Your task to perform on an android device: turn on priority inbox in the gmail app Image 0: 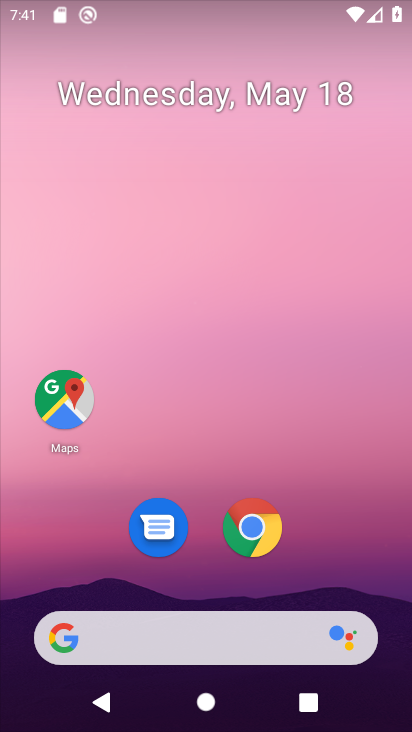
Step 0: drag from (350, 279) to (359, 136)
Your task to perform on an android device: turn on priority inbox in the gmail app Image 1: 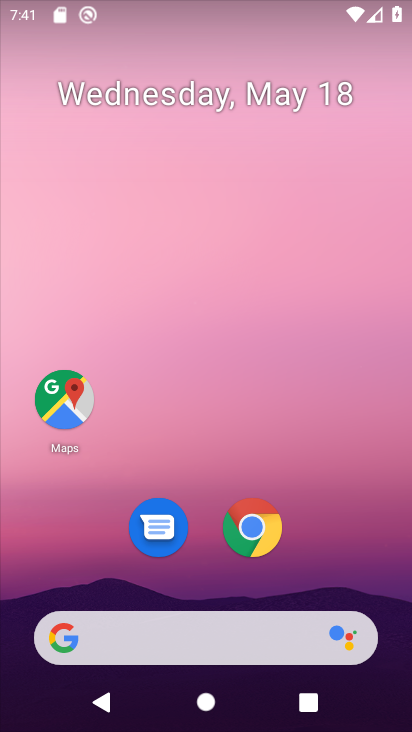
Step 1: drag from (302, 565) to (297, 155)
Your task to perform on an android device: turn on priority inbox in the gmail app Image 2: 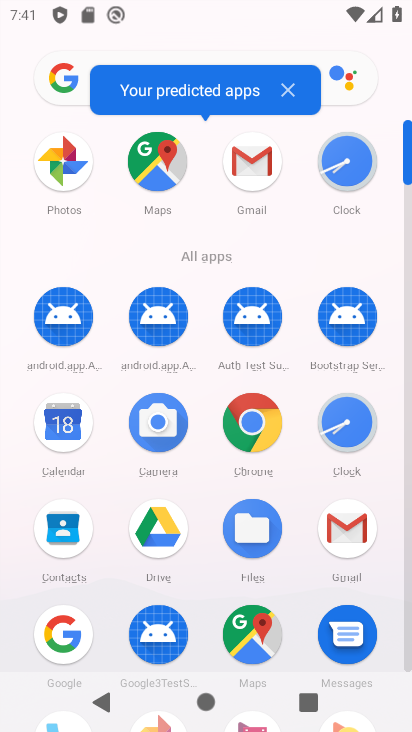
Step 2: click (361, 546)
Your task to perform on an android device: turn on priority inbox in the gmail app Image 3: 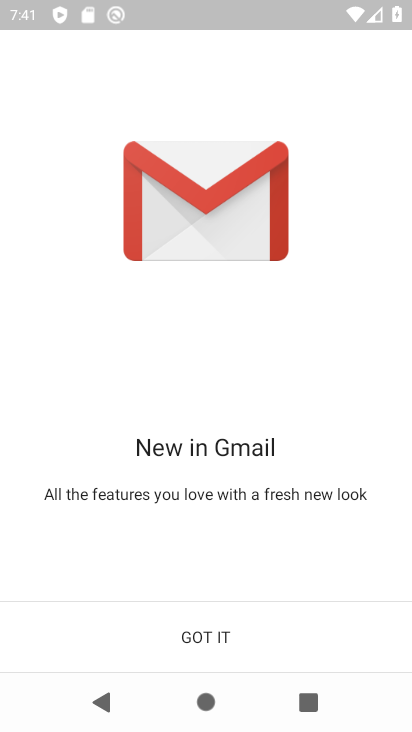
Step 3: click (181, 641)
Your task to perform on an android device: turn on priority inbox in the gmail app Image 4: 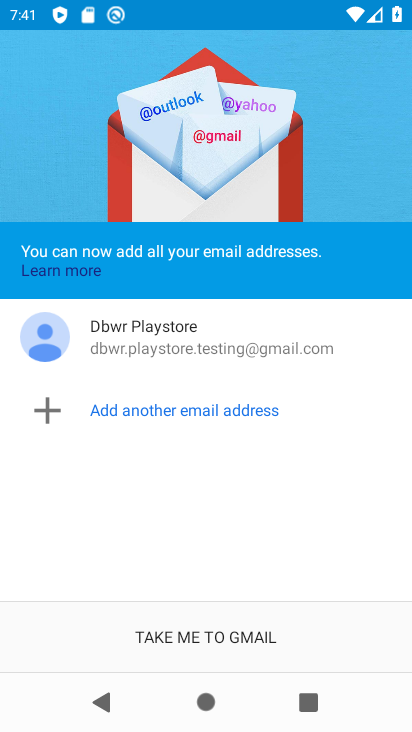
Step 4: click (181, 641)
Your task to perform on an android device: turn on priority inbox in the gmail app Image 5: 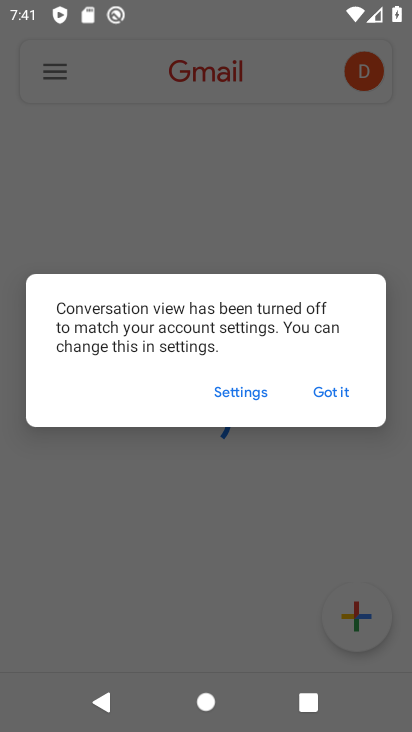
Step 5: click (322, 383)
Your task to perform on an android device: turn on priority inbox in the gmail app Image 6: 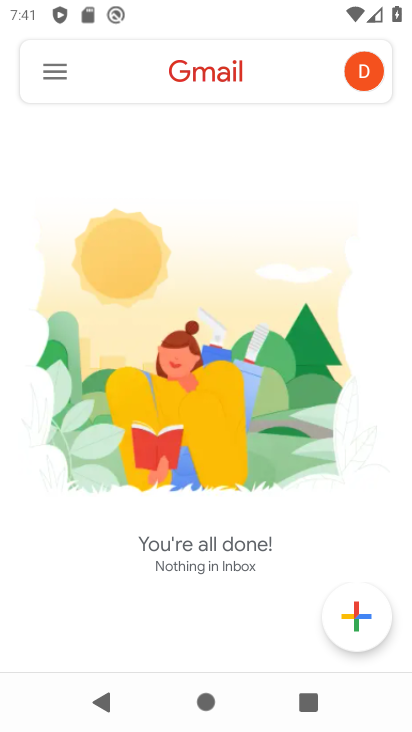
Step 6: click (29, 70)
Your task to perform on an android device: turn on priority inbox in the gmail app Image 7: 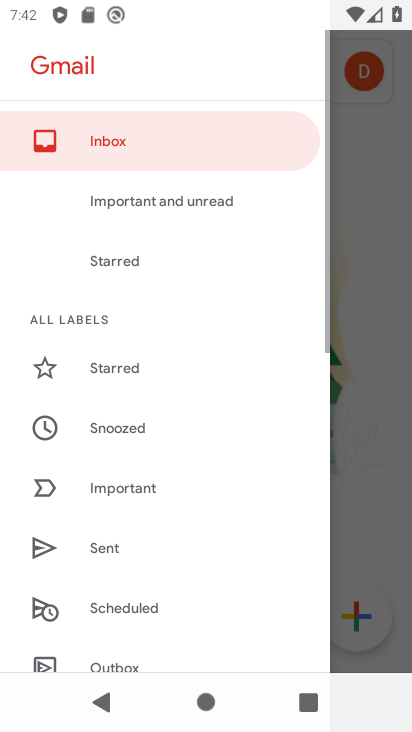
Step 7: drag from (225, 514) to (255, 161)
Your task to perform on an android device: turn on priority inbox in the gmail app Image 8: 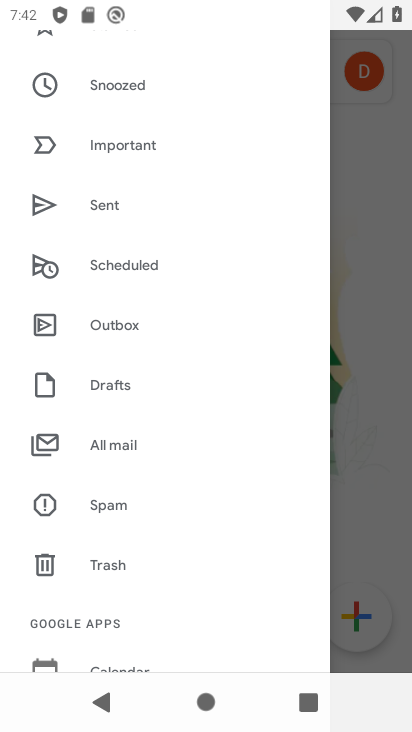
Step 8: drag from (154, 491) to (194, 179)
Your task to perform on an android device: turn on priority inbox in the gmail app Image 9: 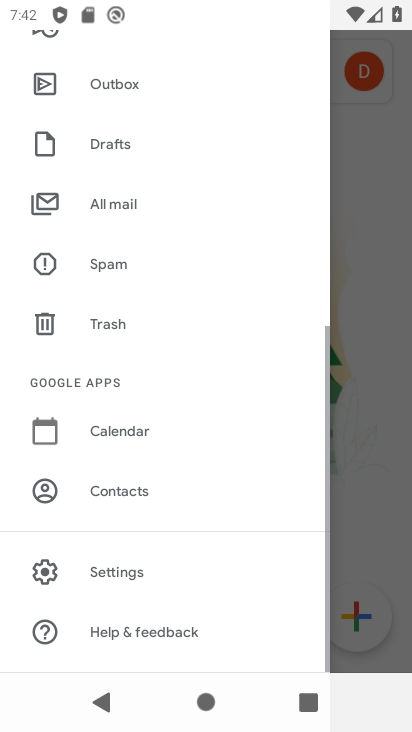
Step 9: click (116, 558)
Your task to perform on an android device: turn on priority inbox in the gmail app Image 10: 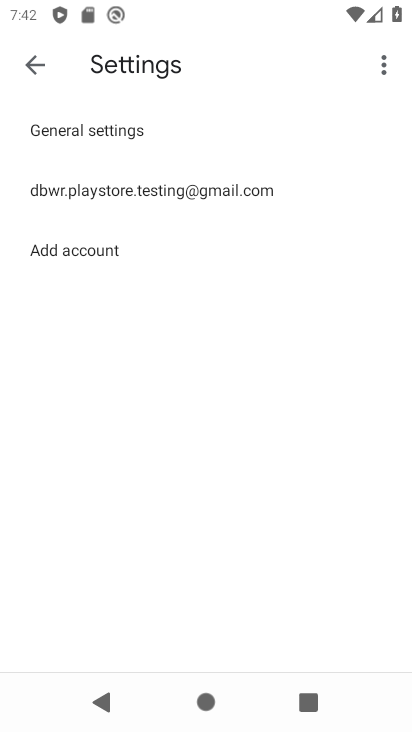
Step 10: click (175, 202)
Your task to perform on an android device: turn on priority inbox in the gmail app Image 11: 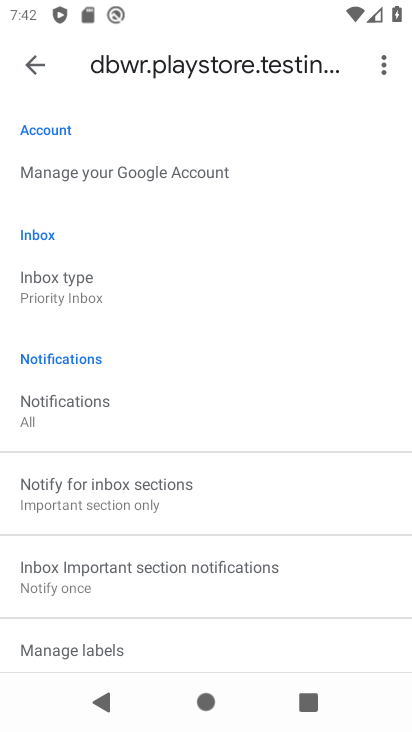
Step 11: task complete